Your task to perform on an android device: Clear the shopping cart on bestbuy.com. Image 0: 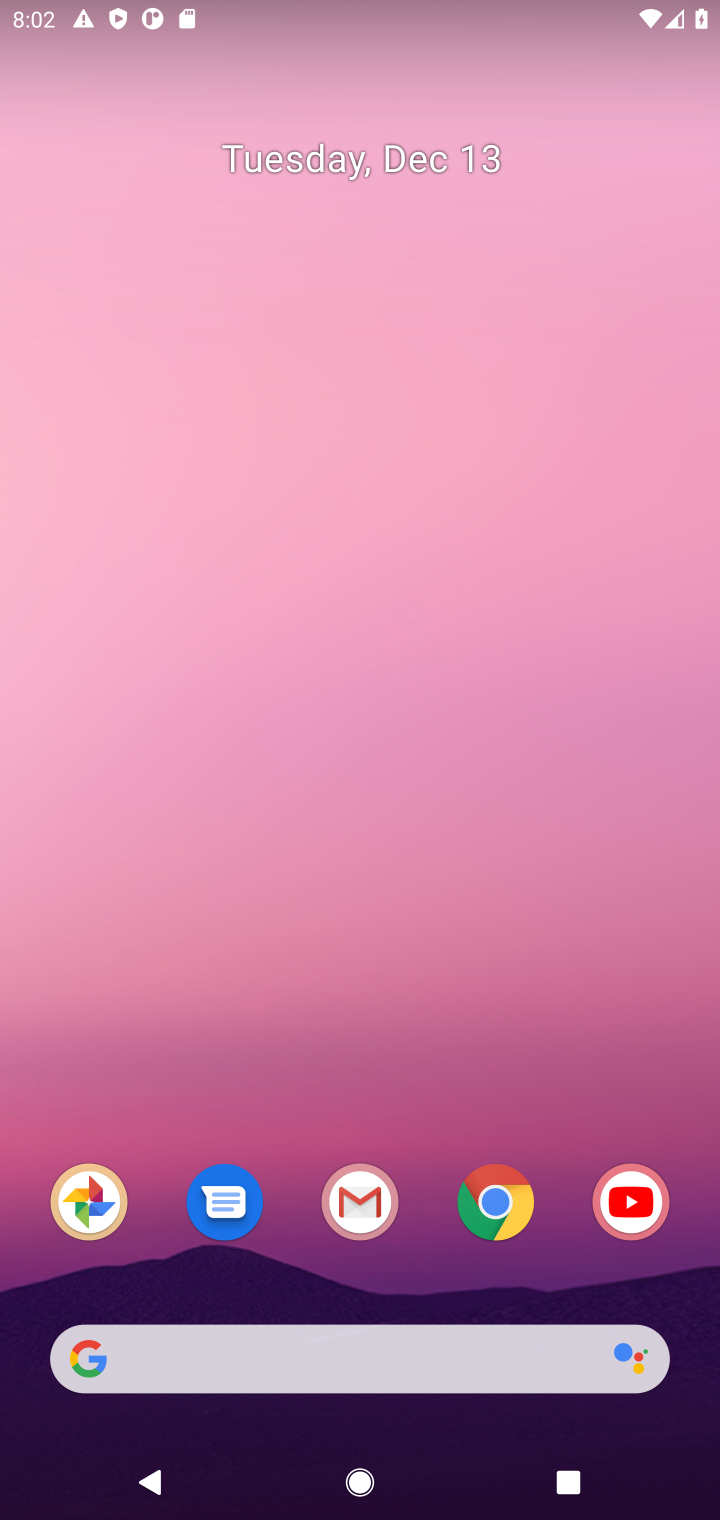
Step 0: click (499, 1204)
Your task to perform on an android device: Clear the shopping cart on bestbuy.com. Image 1: 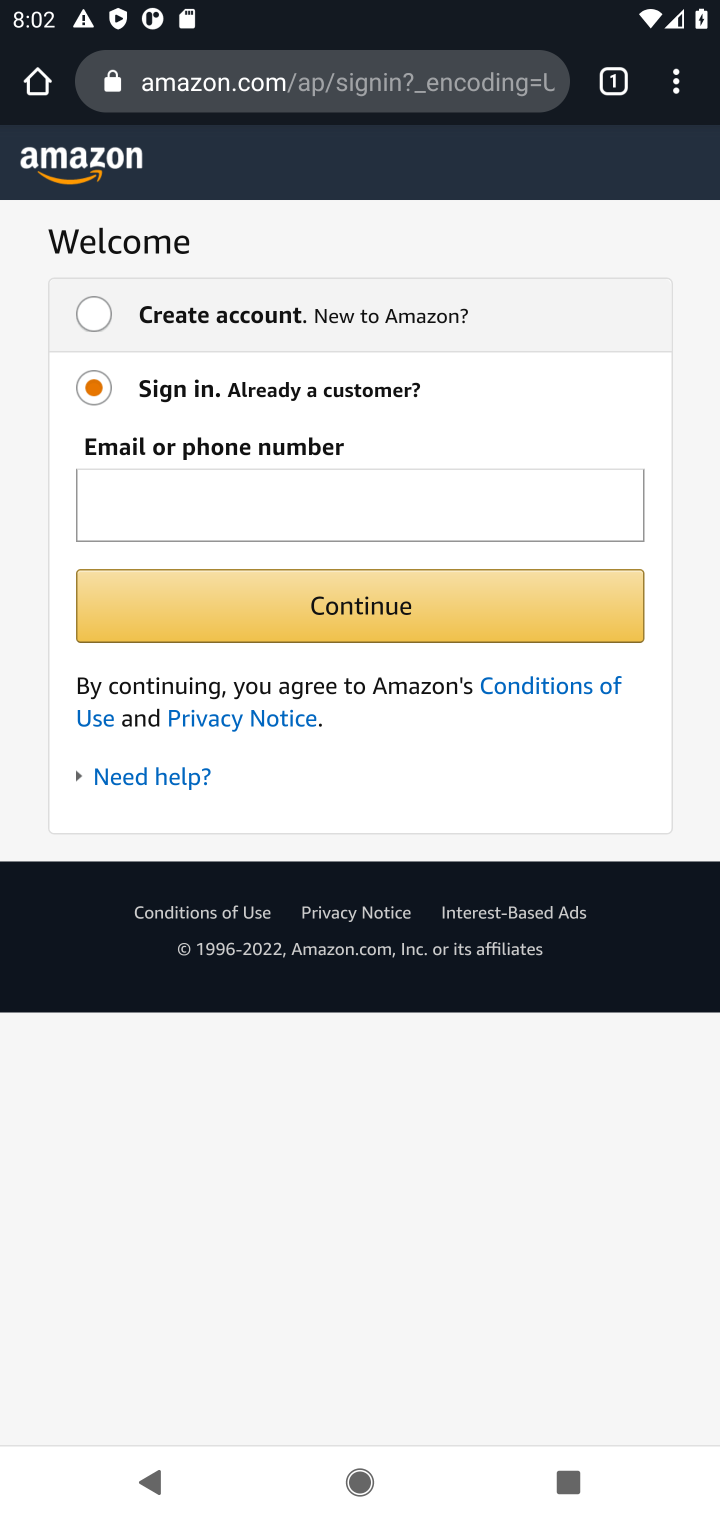
Step 1: click (243, 81)
Your task to perform on an android device: Clear the shopping cart on bestbuy.com. Image 2: 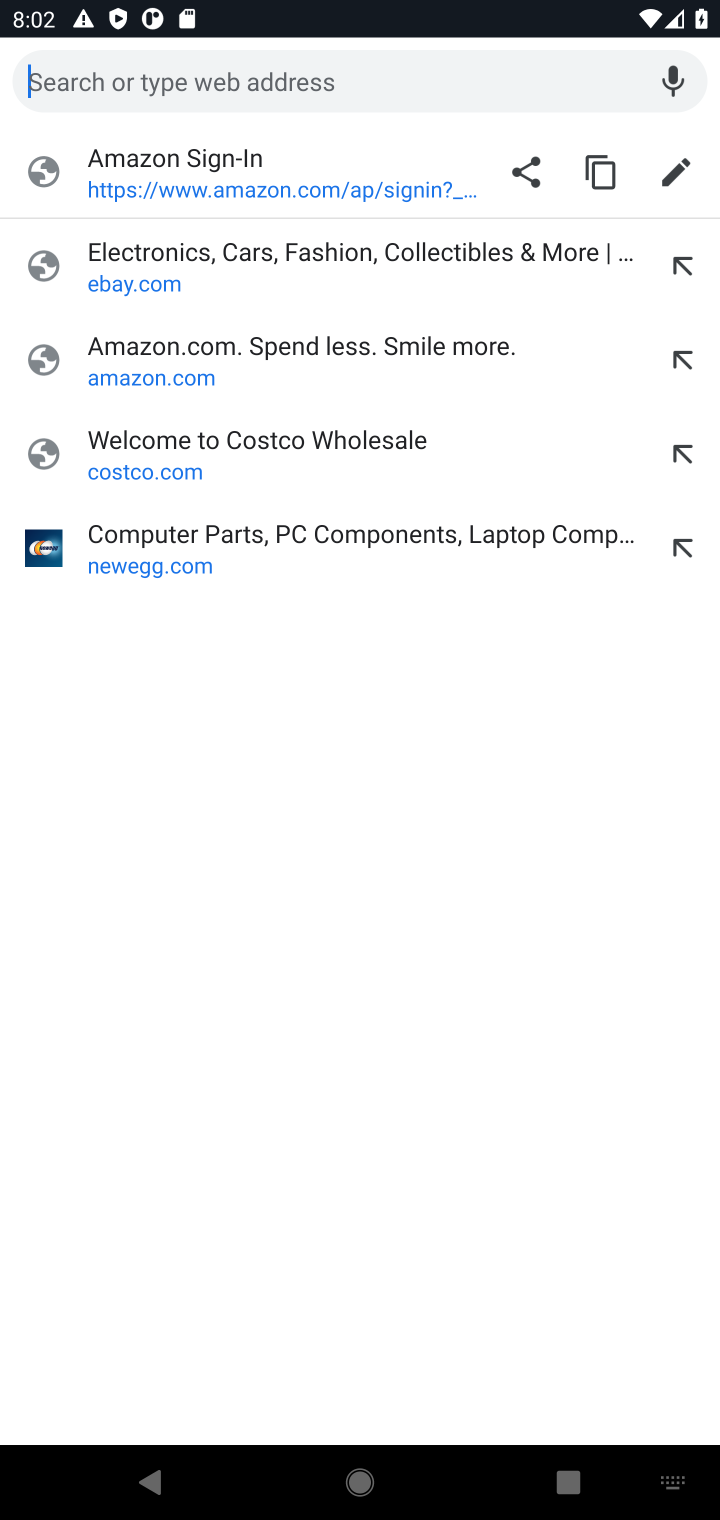
Step 2: type "bestbuy.com"
Your task to perform on an android device: Clear the shopping cart on bestbuy.com. Image 3: 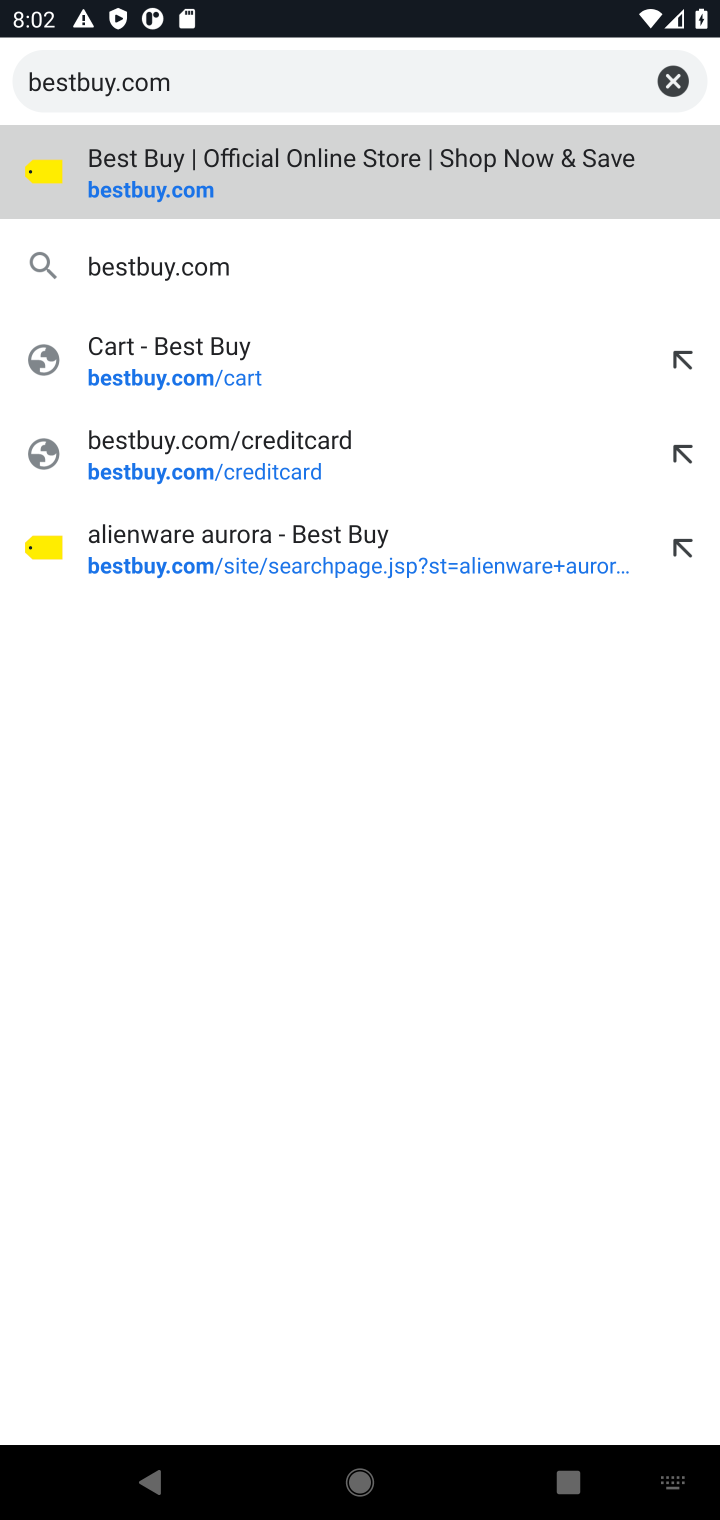
Step 3: click (137, 198)
Your task to perform on an android device: Clear the shopping cart on bestbuy.com. Image 4: 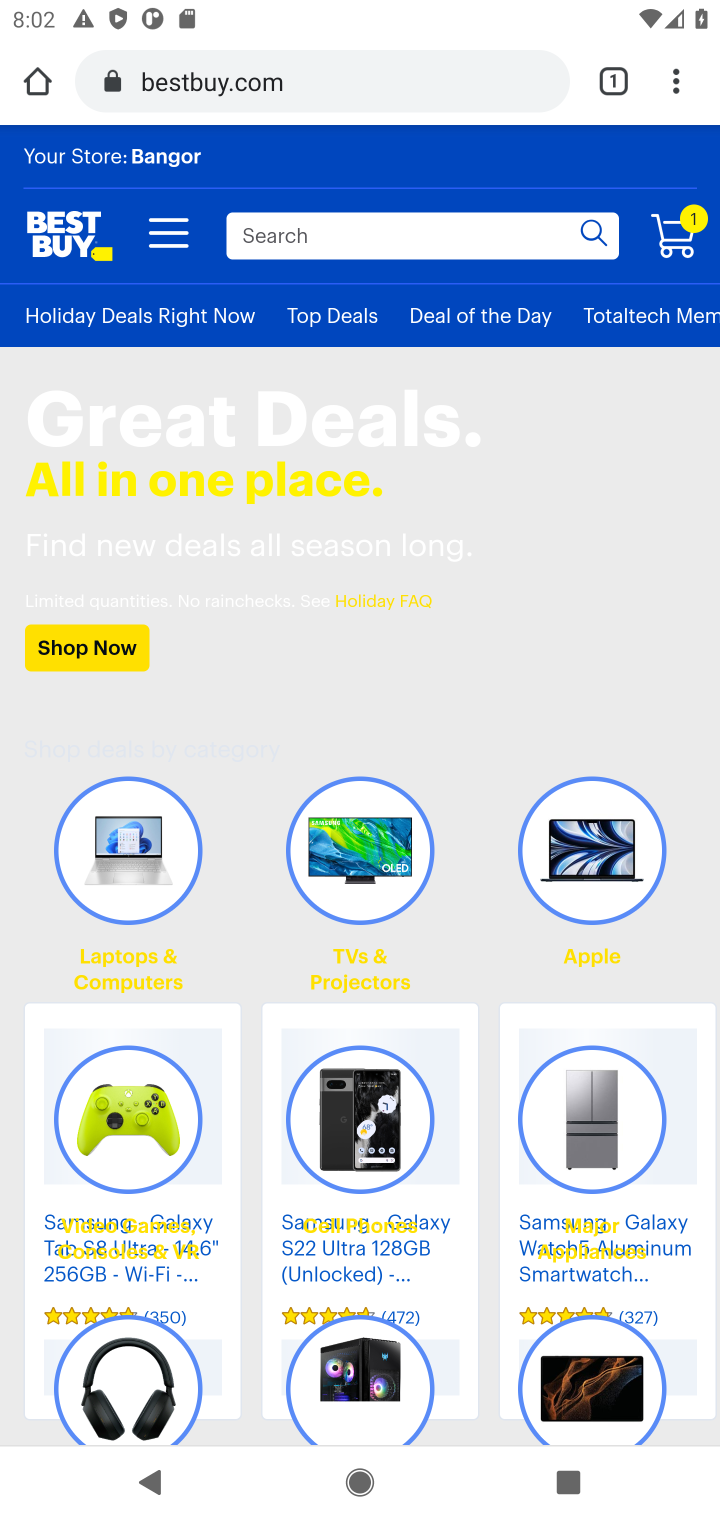
Step 4: click (671, 234)
Your task to perform on an android device: Clear the shopping cart on bestbuy.com. Image 5: 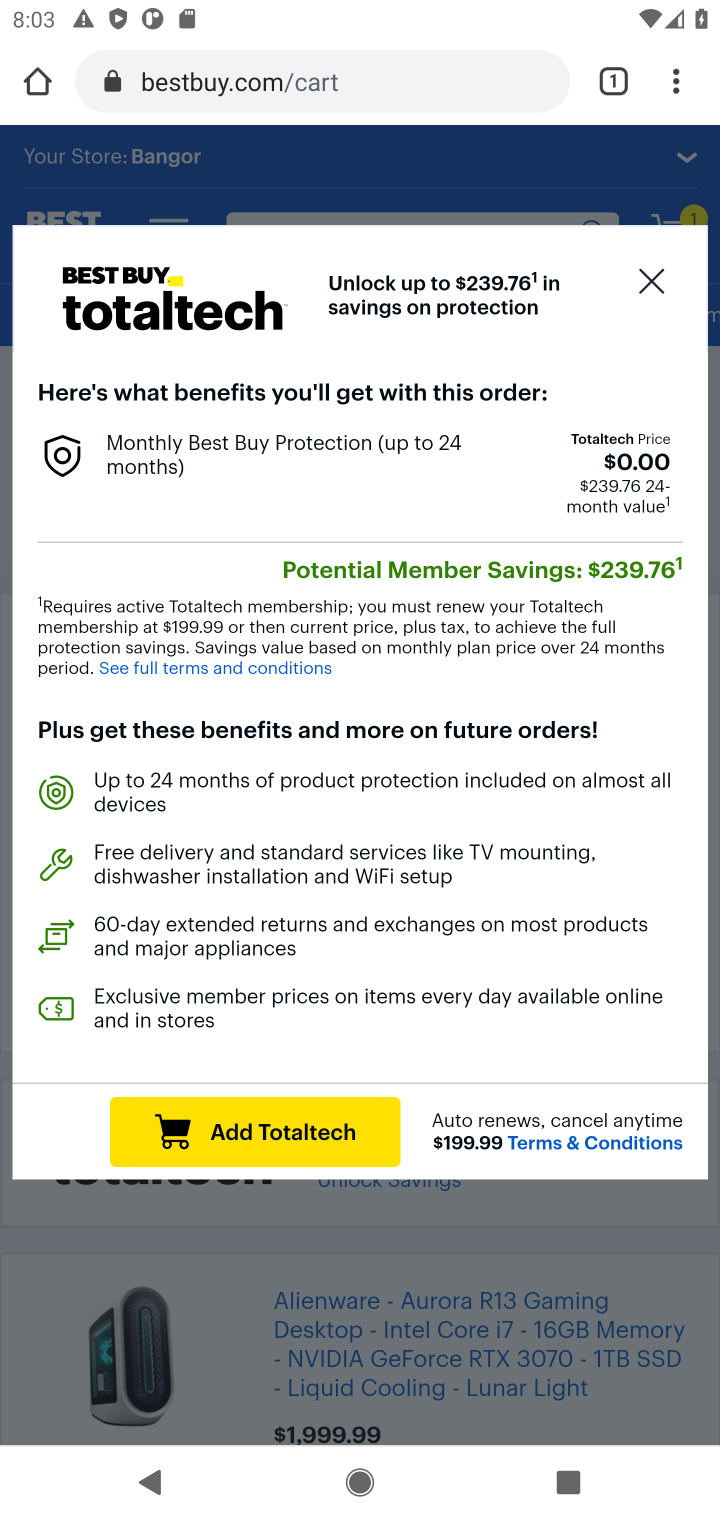
Step 5: click (649, 281)
Your task to perform on an android device: Clear the shopping cart on bestbuy.com. Image 6: 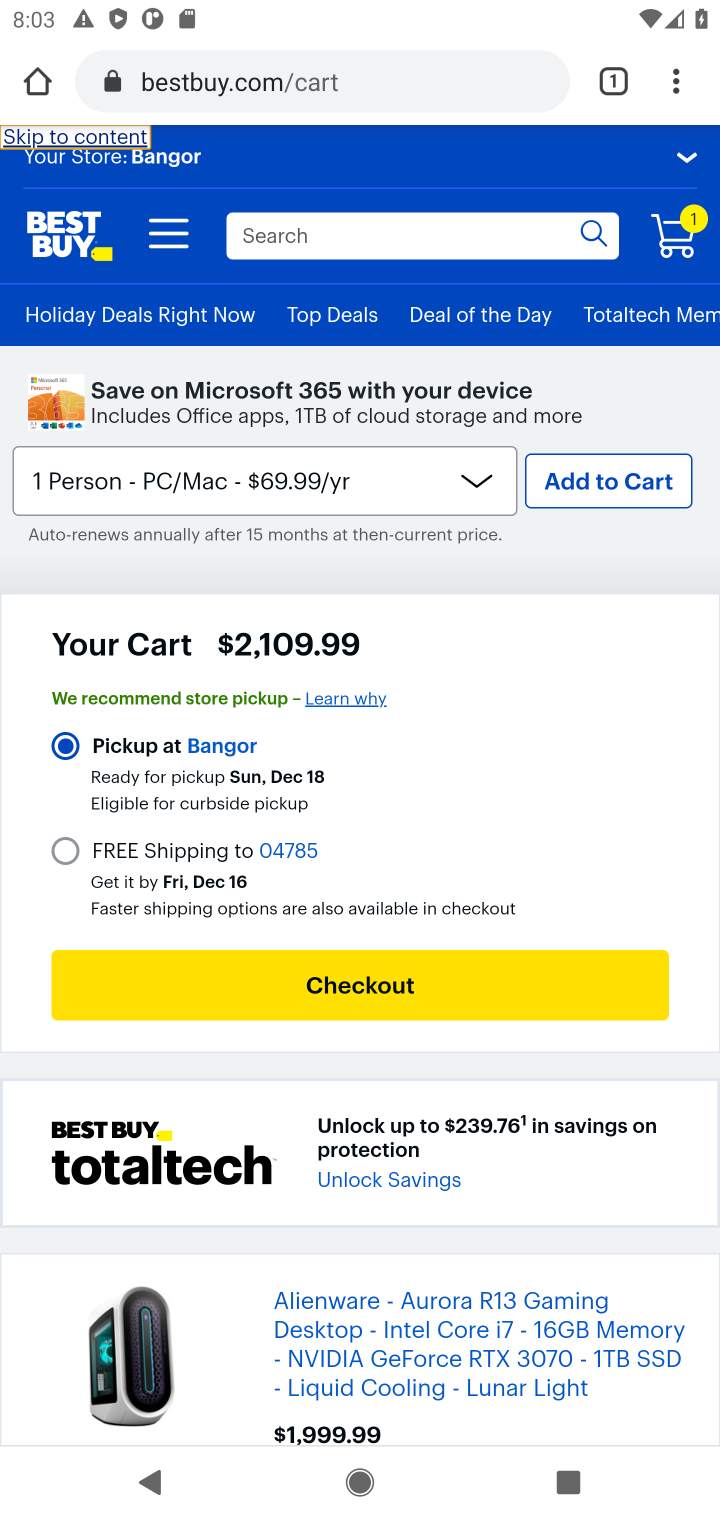
Step 6: drag from (301, 904) to (307, 449)
Your task to perform on an android device: Clear the shopping cart on bestbuy.com. Image 7: 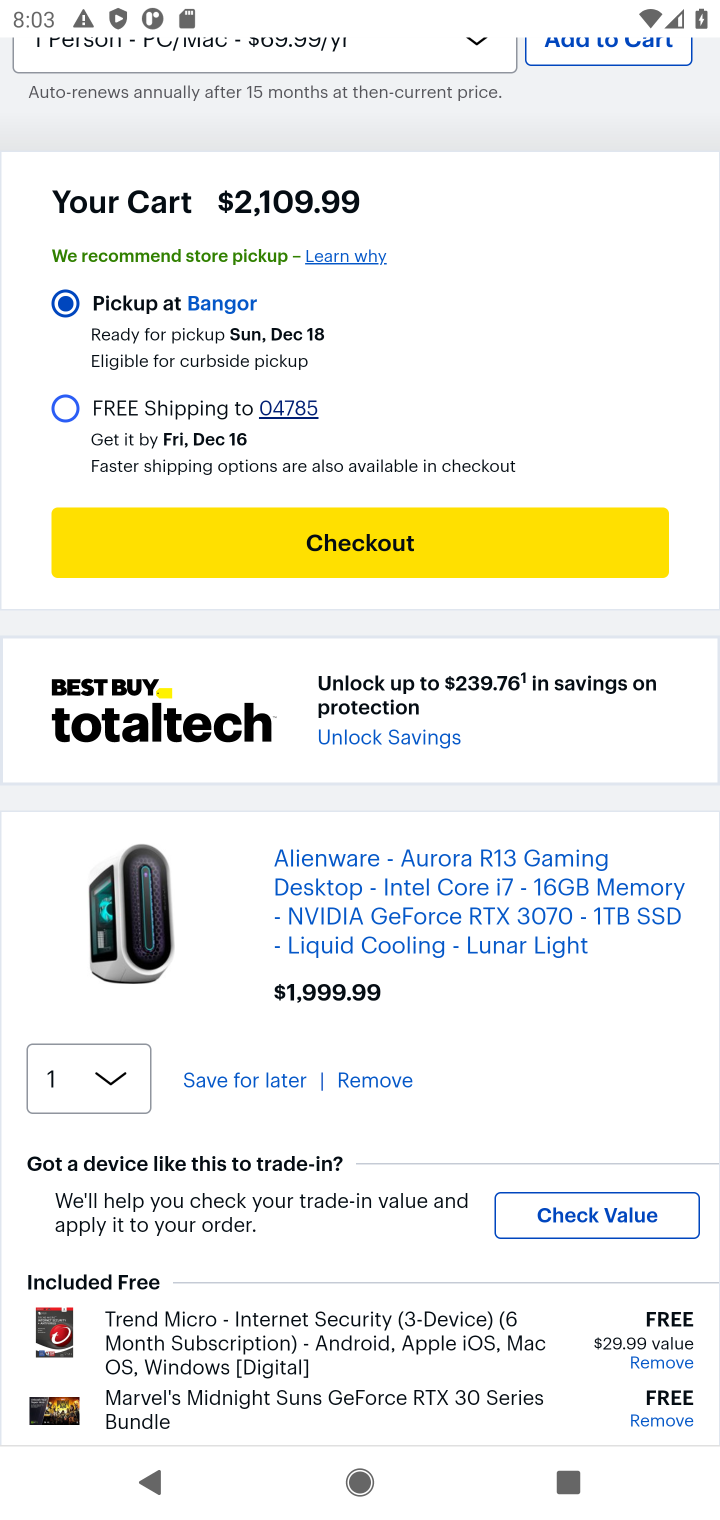
Step 7: click (340, 1086)
Your task to perform on an android device: Clear the shopping cart on bestbuy.com. Image 8: 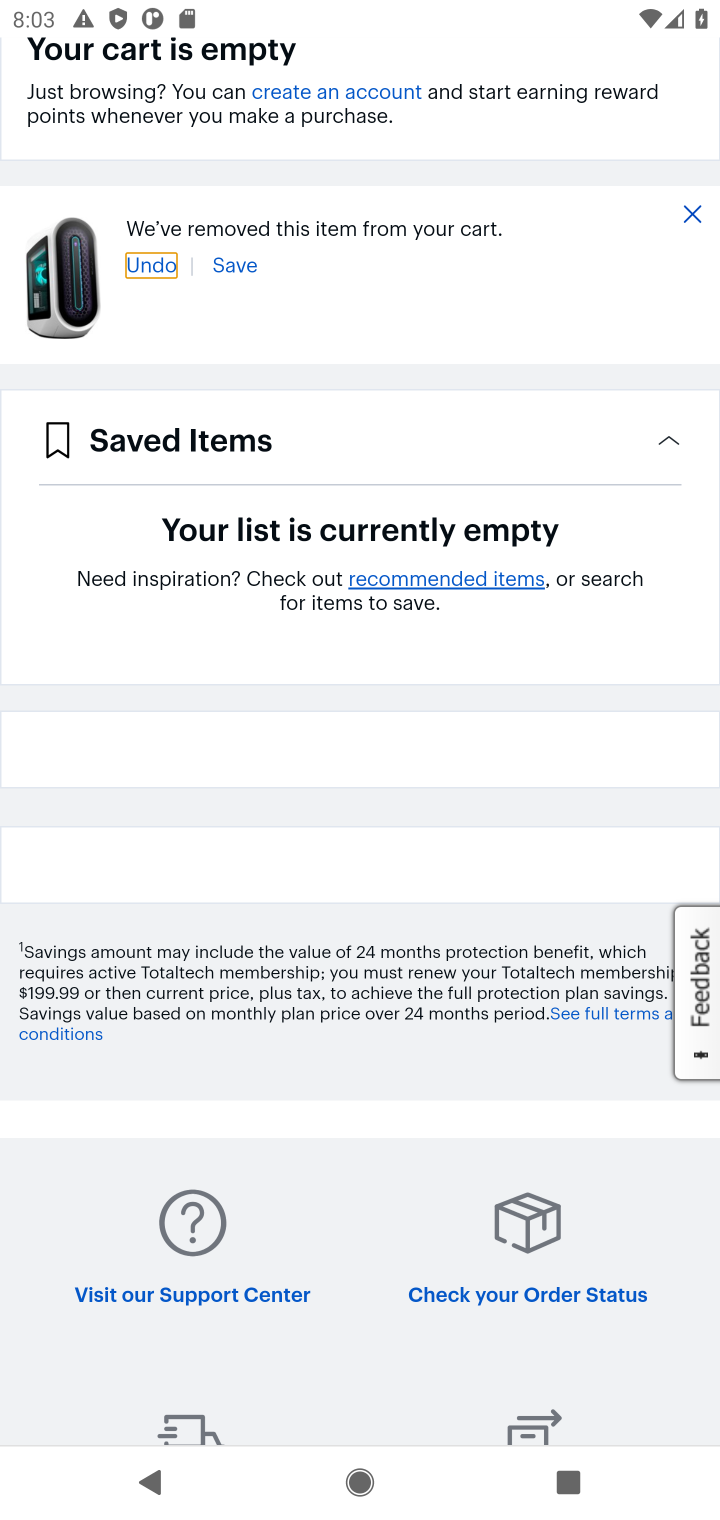
Step 8: task complete